Your task to perform on an android device: see sites visited before in the chrome app Image 0: 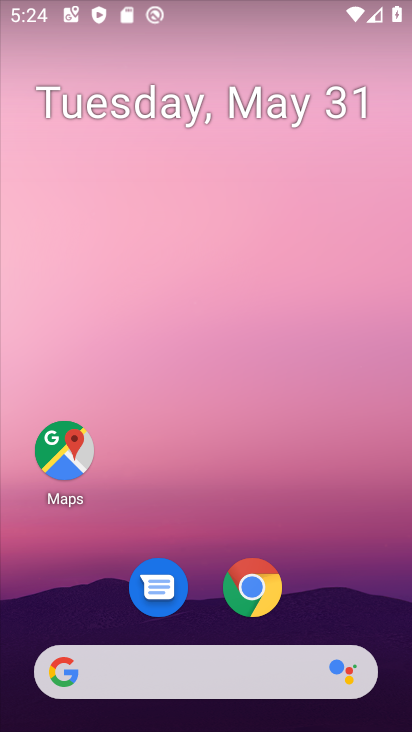
Step 0: click (249, 588)
Your task to perform on an android device: see sites visited before in the chrome app Image 1: 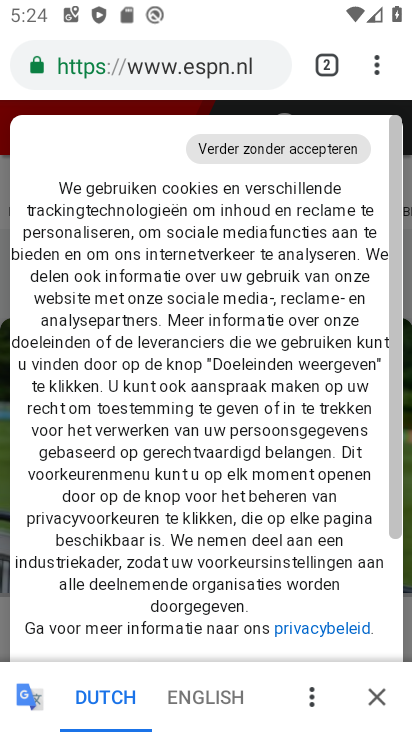
Step 1: click (384, 59)
Your task to perform on an android device: see sites visited before in the chrome app Image 2: 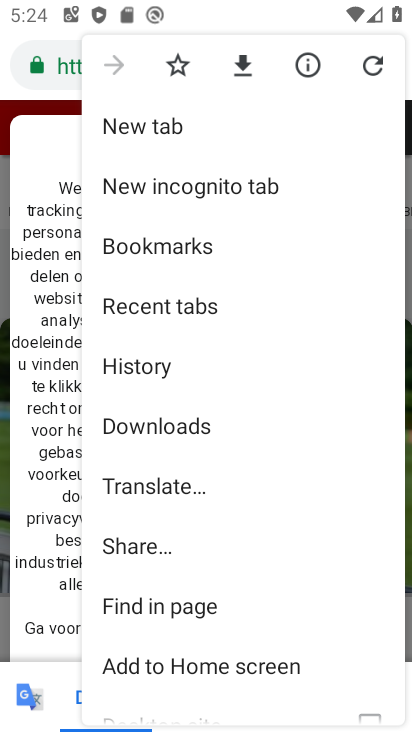
Step 2: drag from (170, 627) to (209, 264)
Your task to perform on an android device: see sites visited before in the chrome app Image 3: 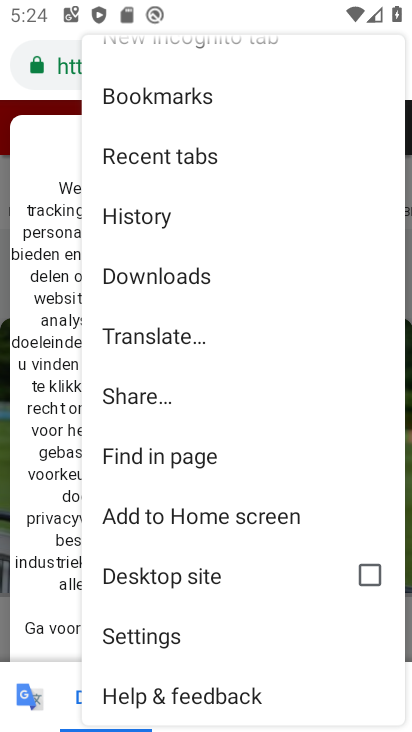
Step 3: click (157, 626)
Your task to perform on an android device: see sites visited before in the chrome app Image 4: 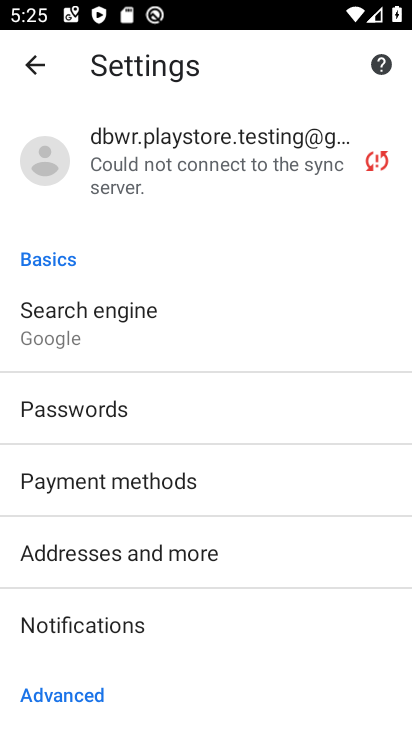
Step 4: click (46, 68)
Your task to perform on an android device: see sites visited before in the chrome app Image 5: 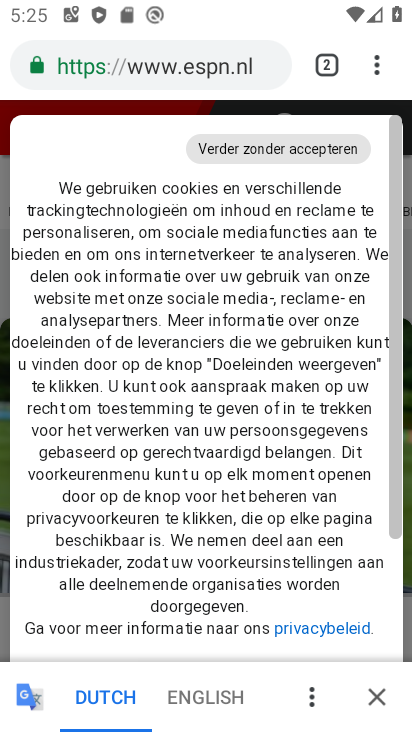
Step 5: click (383, 56)
Your task to perform on an android device: see sites visited before in the chrome app Image 6: 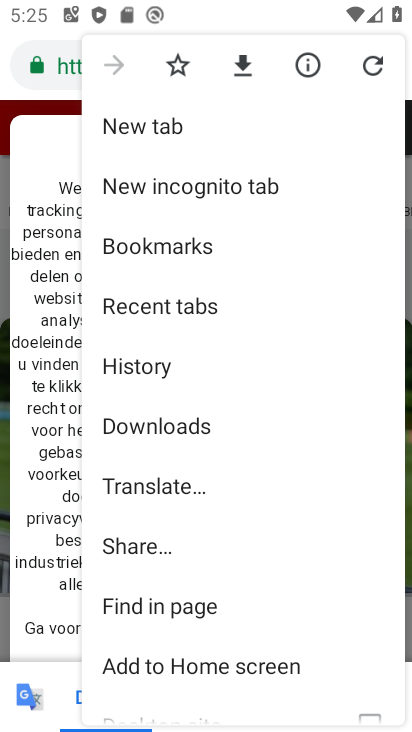
Step 6: click (192, 304)
Your task to perform on an android device: see sites visited before in the chrome app Image 7: 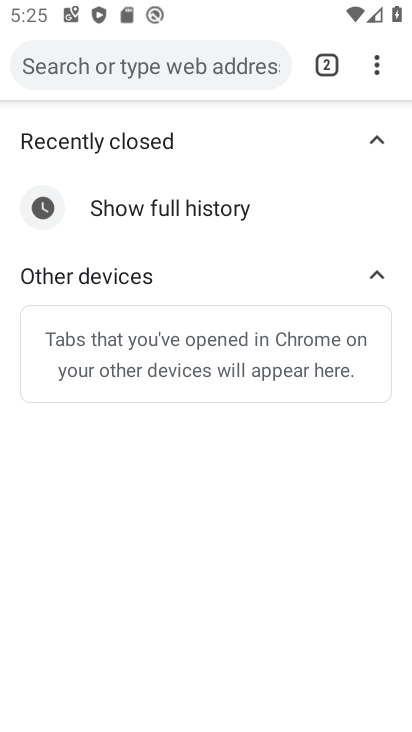
Step 7: task complete